Your task to perform on an android device: read, delete, or share a saved page in the chrome app Image 0: 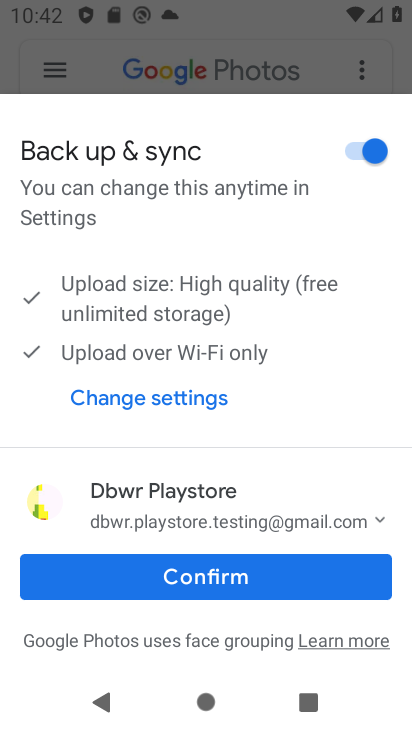
Step 0: press home button
Your task to perform on an android device: read, delete, or share a saved page in the chrome app Image 1: 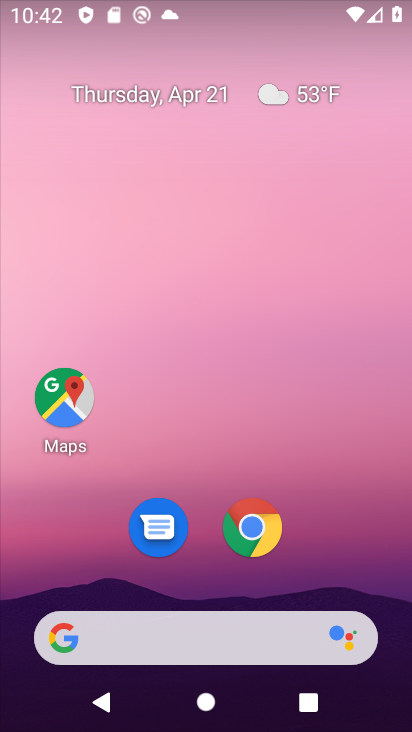
Step 1: drag from (334, 548) to (346, 142)
Your task to perform on an android device: read, delete, or share a saved page in the chrome app Image 2: 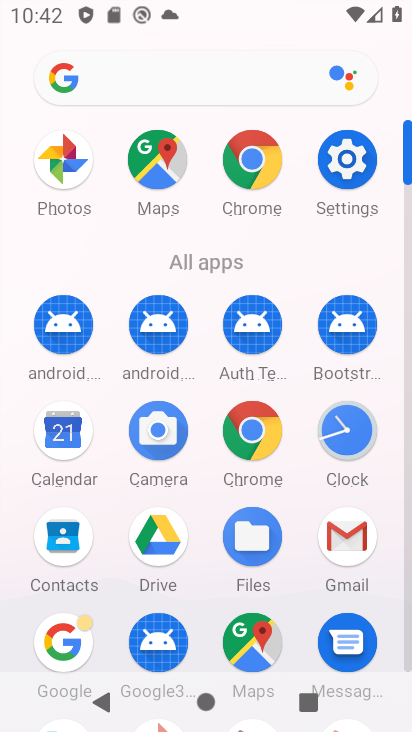
Step 2: click (252, 444)
Your task to perform on an android device: read, delete, or share a saved page in the chrome app Image 3: 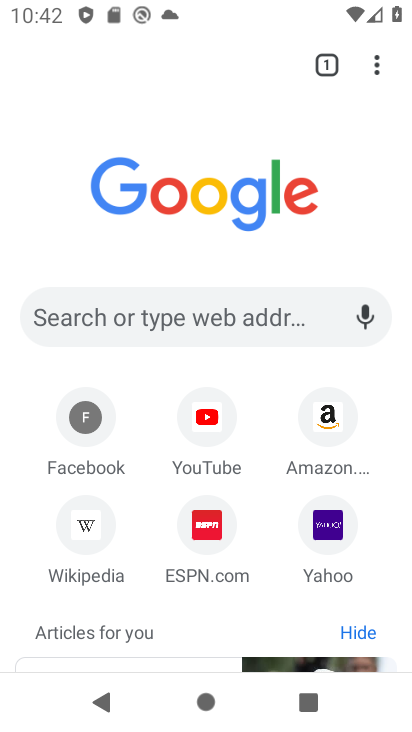
Step 3: click (377, 71)
Your task to perform on an android device: read, delete, or share a saved page in the chrome app Image 4: 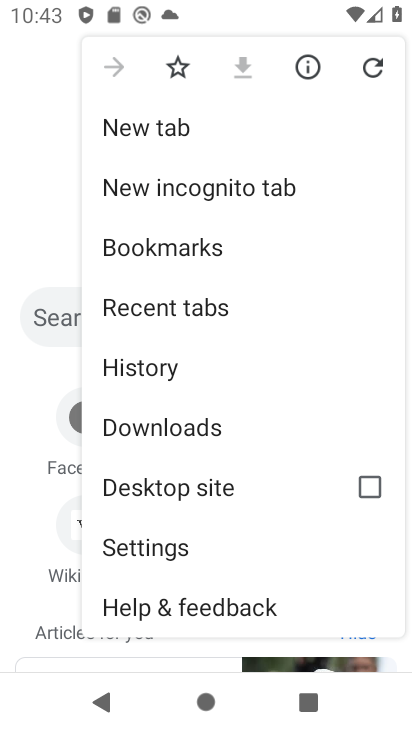
Step 4: click (203, 423)
Your task to perform on an android device: read, delete, or share a saved page in the chrome app Image 5: 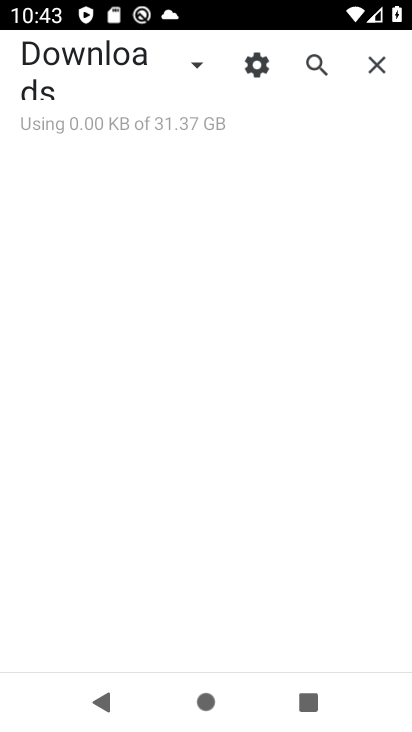
Step 5: click (200, 58)
Your task to perform on an android device: read, delete, or share a saved page in the chrome app Image 6: 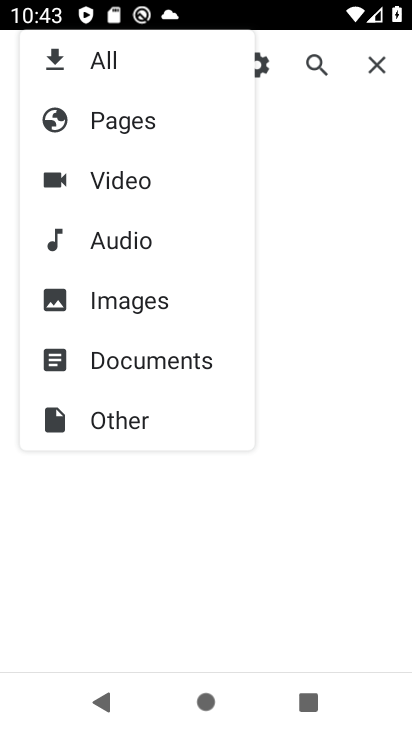
Step 6: click (135, 123)
Your task to perform on an android device: read, delete, or share a saved page in the chrome app Image 7: 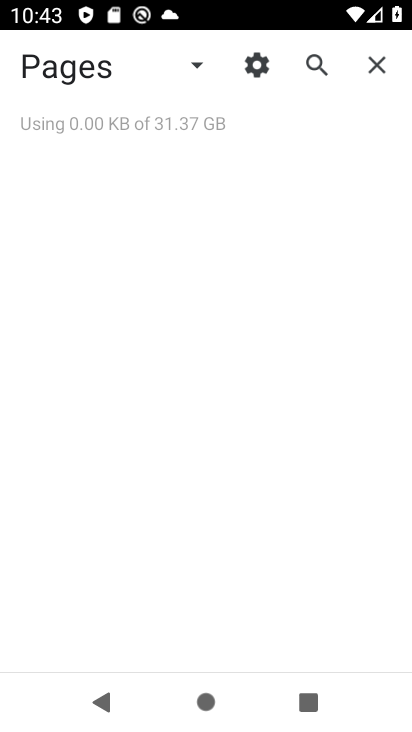
Step 7: task complete